Your task to perform on an android device: Open Google Image 0: 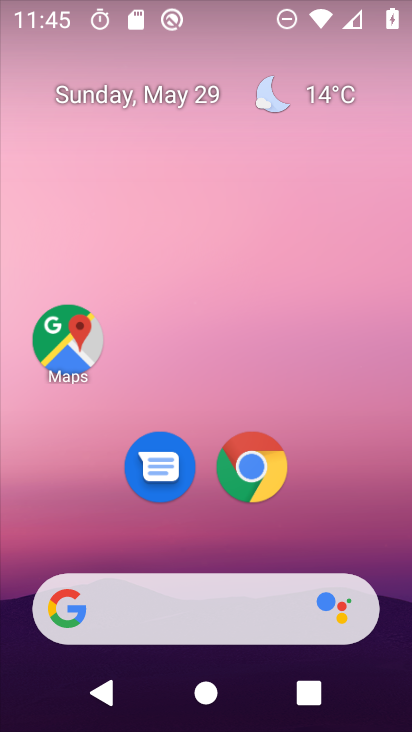
Step 0: drag from (210, 383) to (215, 111)
Your task to perform on an android device: Open Google Image 1: 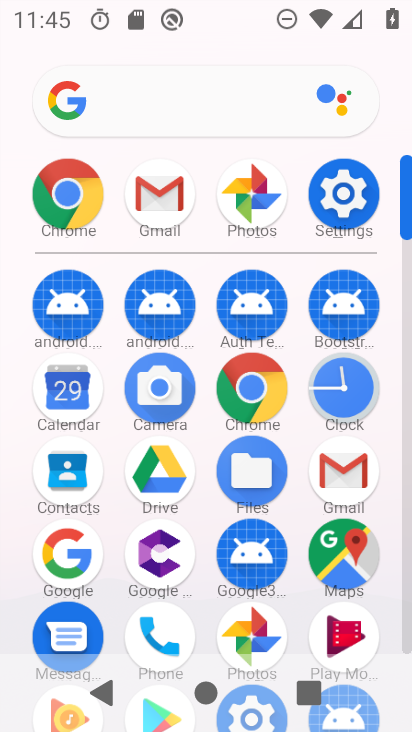
Step 1: click (76, 556)
Your task to perform on an android device: Open Google Image 2: 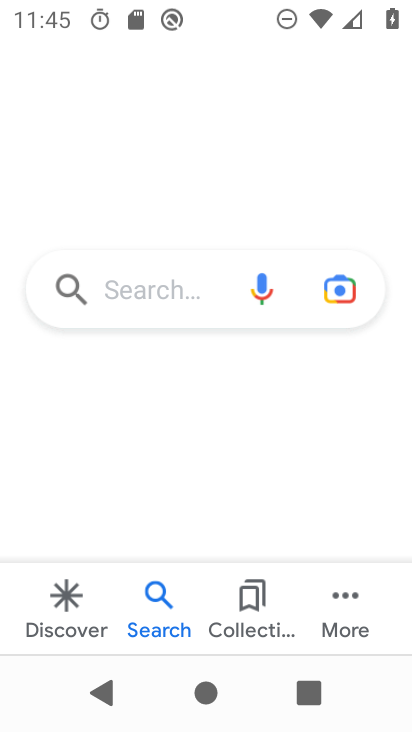
Step 2: task complete